Your task to perform on an android device: Is it going to rain this weekend? Image 0: 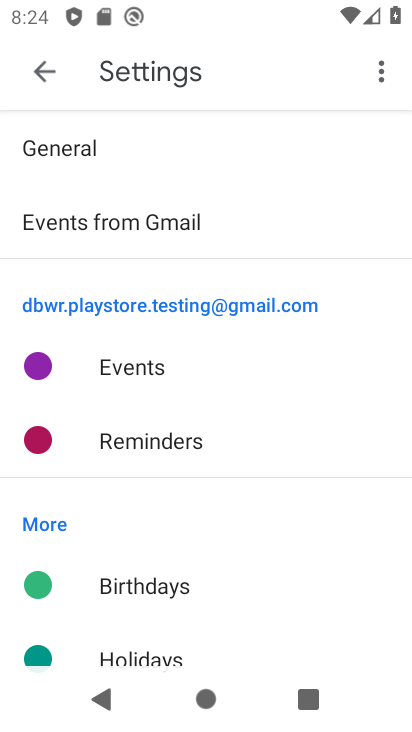
Step 0: press home button
Your task to perform on an android device: Is it going to rain this weekend? Image 1: 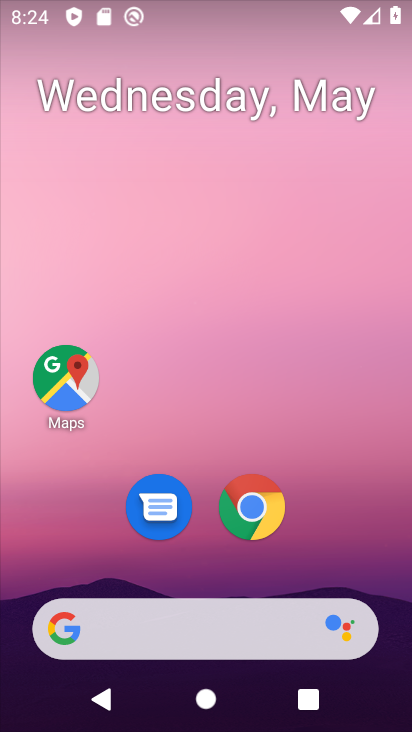
Step 1: click (263, 516)
Your task to perform on an android device: Is it going to rain this weekend? Image 2: 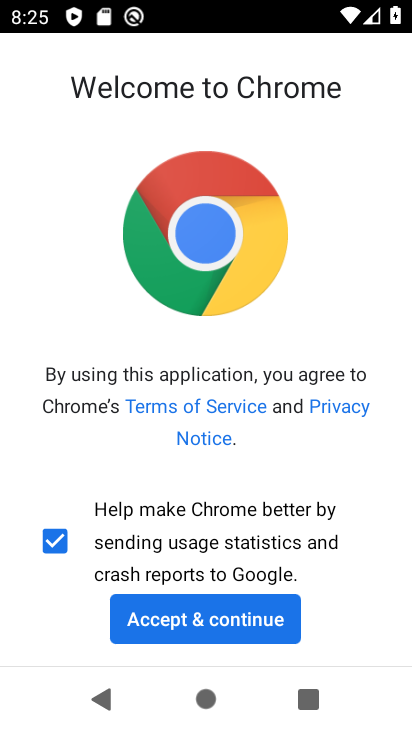
Step 2: click (262, 613)
Your task to perform on an android device: Is it going to rain this weekend? Image 3: 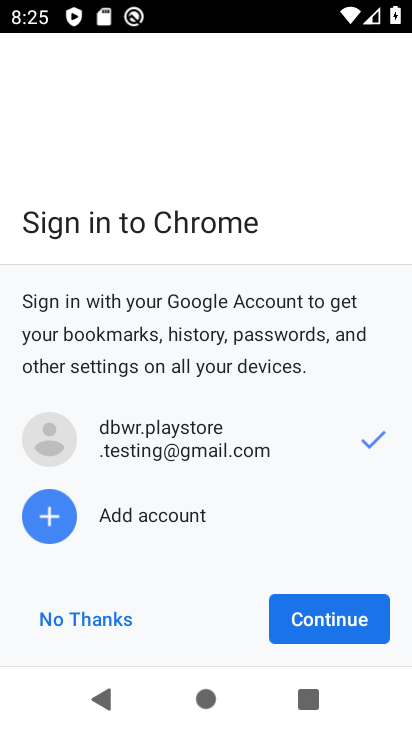
Step 3: click (353, 627)
Your task to perform on an android device: Is it going to rain this weekend? Image 4: 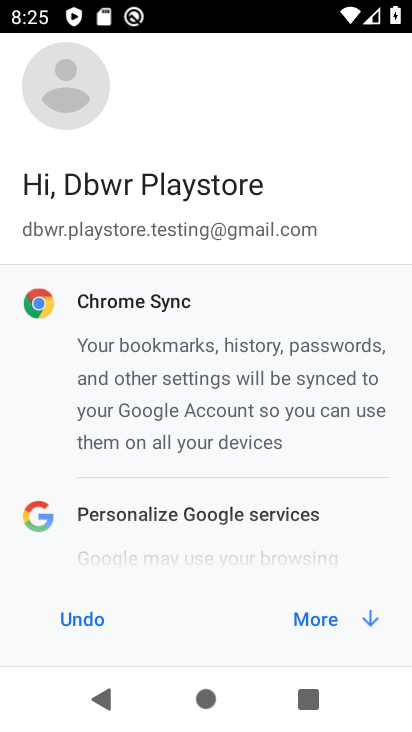
Step 4: click (353, 627)
Your task to perform on an android device: Is it going to rain this weekend? Image 5: 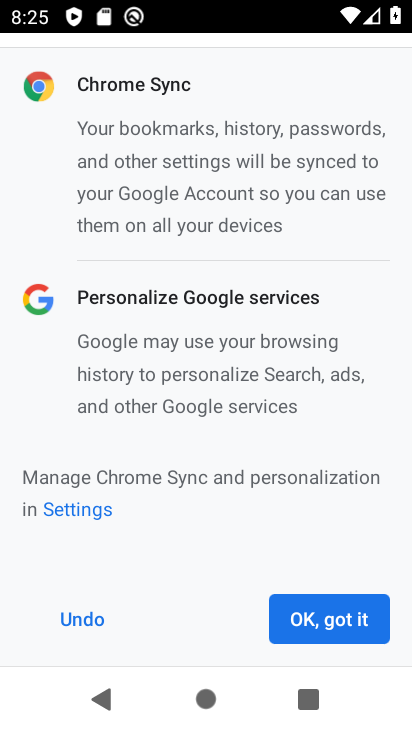
Step 5: click (353, 627)
Your task to perform on an android device: Is it going to rain this weekend? Image 6: 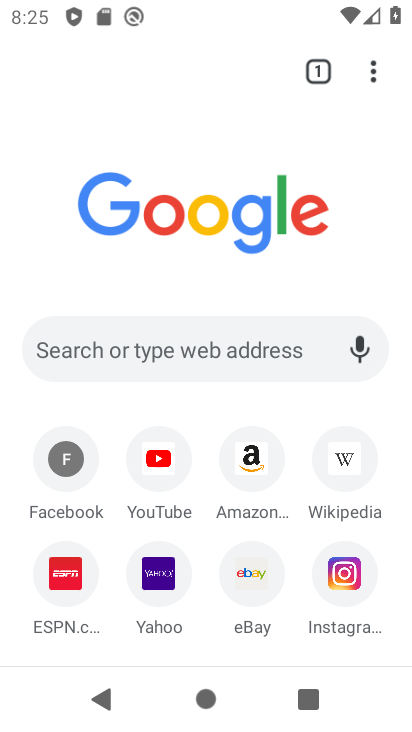
Step 6: click (227, 350)
Your task to perform on an android device: Is it going to rain this weekend? Image 7: 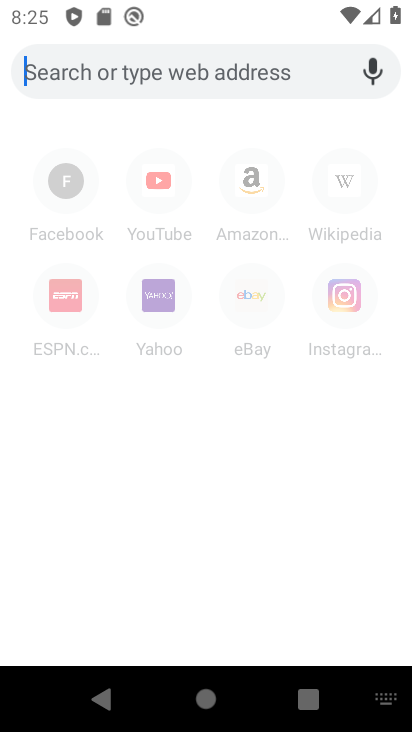
Step 7: type "Is it going to rain this weekend?"
Your task to perform on an android device: Is it going to rain this weekend? Image 8: 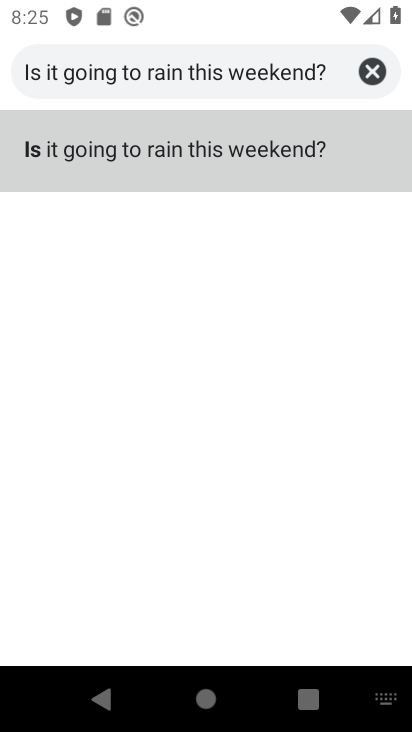
Step 8: click (256, 136)
Your task to perform on an android device: Is it going to rain this weekend? Image 9: 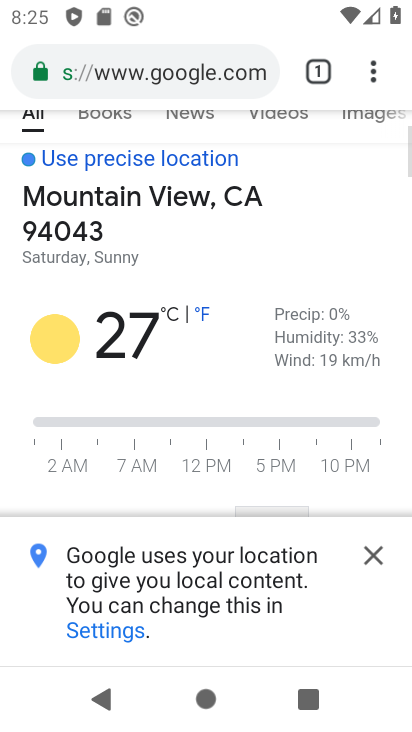
Step 9: click (374, 556)
Your task to perform on an android device: Is it going to rain this weekend? Image 10: 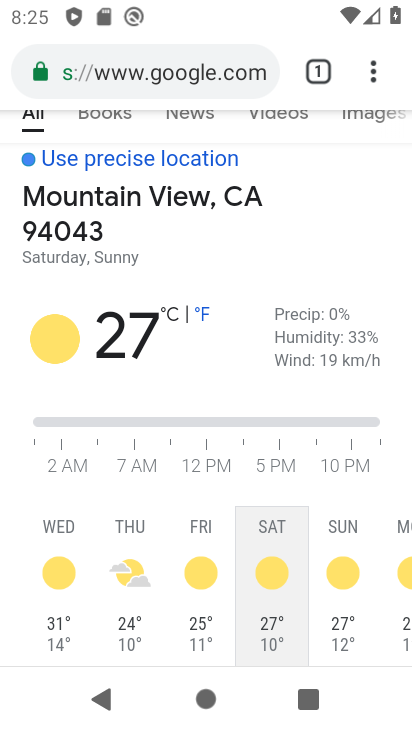
Step 10: task complete